Your task to perform on an android device: change notification settings in the gmail app Image 0: 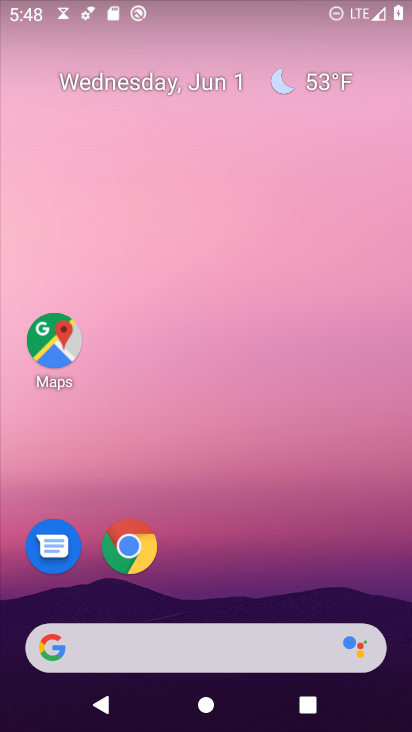
Step 0: drag from (281, 507) to (246, 7)
Your task to perform on an android device: change notification settings in the gmail app Image 1: 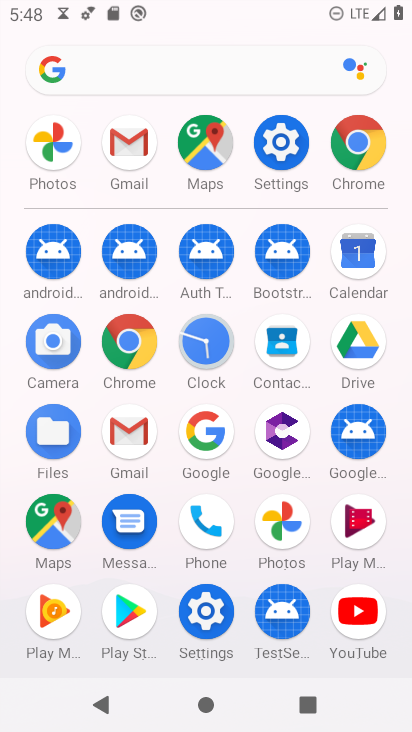
Step 1: drag from (10, 562) to (4, 247)
Your task to perform on an android device: change notification settings in the gmail app Image 2: 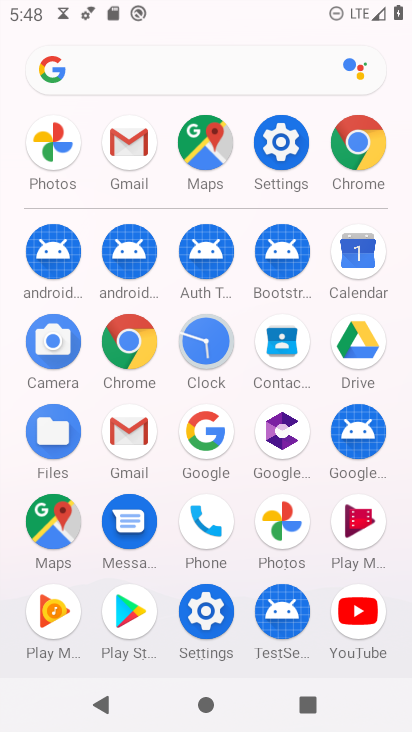
Step 2: click (128, 422)
Your task to perform on an android device: change notification settings in the gmail app Image 3: 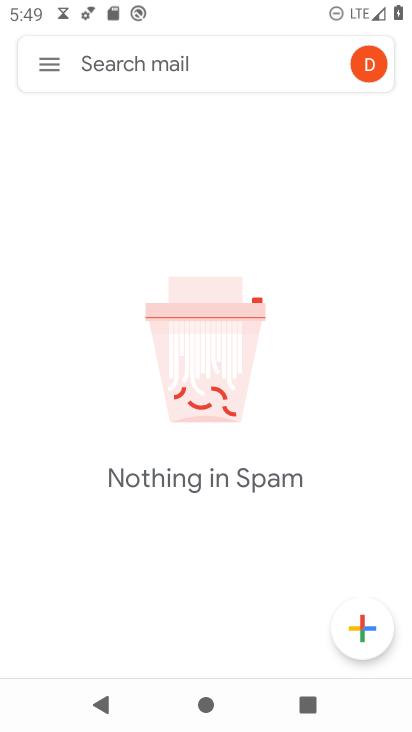
Step 3: click (47, 56)
Your task to perform on an android device: change notification settings in the gmail app Image 4: 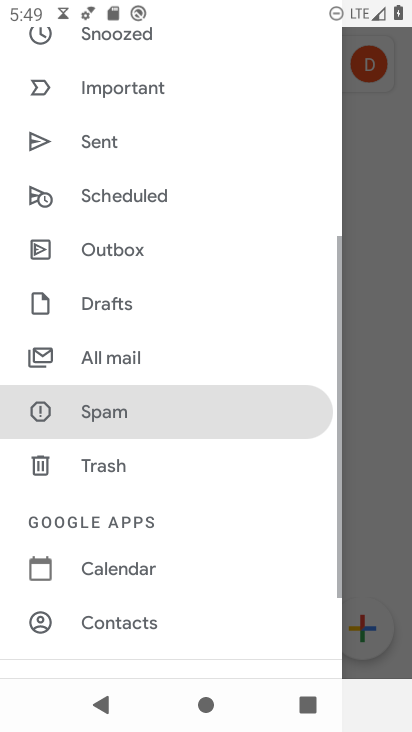
Step 4: drag from (149, 609) to (187, 90)
Your task to perform on an android device: change notification settings in the gmail app Image 5: 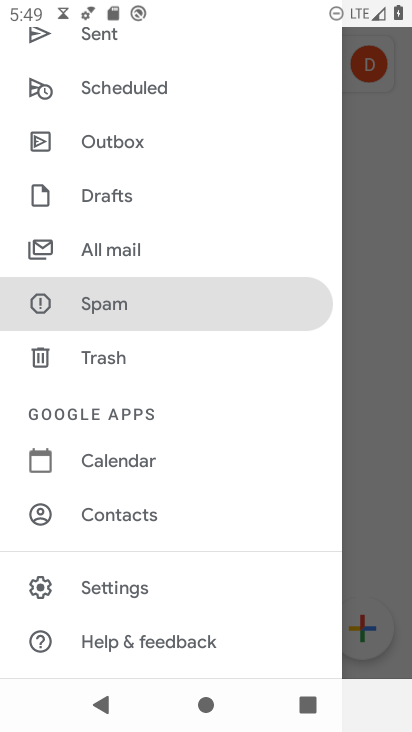
Step 5: click (105, 580)
Your task to perform on an android device: change notification settings in the gmail app Image 6: 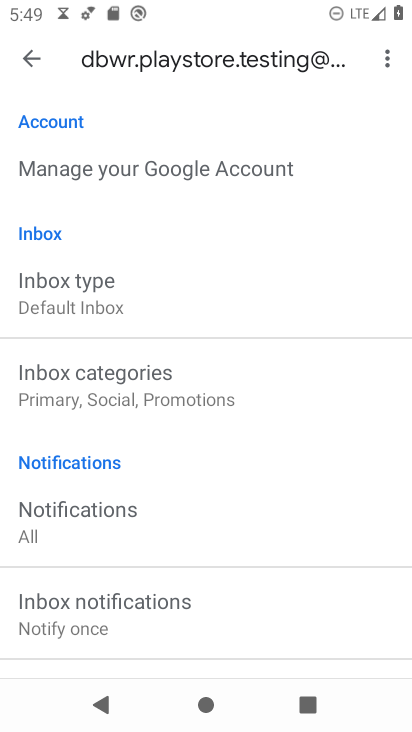
Step 6: drag from (209, 590) to (251, 223)
Your task to perform on an android device: change notification settings in the gmail app Image 7: 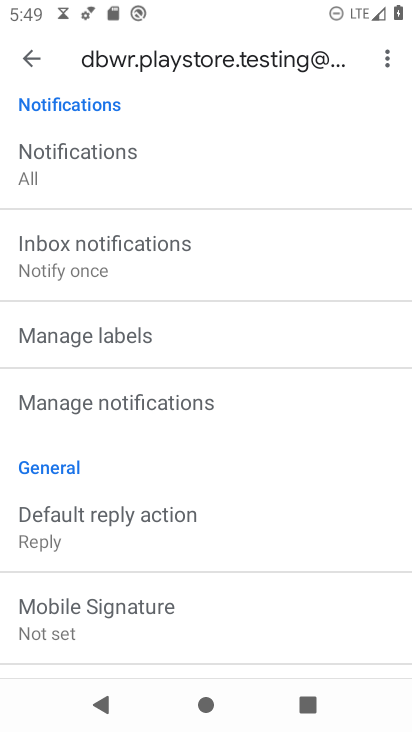
Step 7: click (153, 390)
Your task to perform on an android device: change notification settings in the gmail app Image 8: 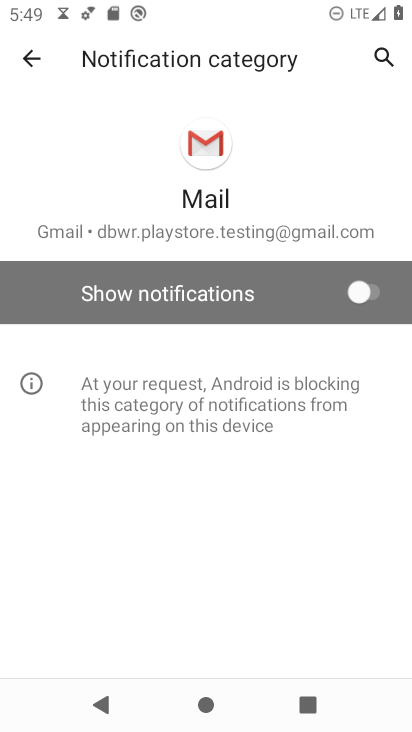
Step 8: click (370, 289)
Your task to perform on an android device: change notification settings in the gmail app Image 9: 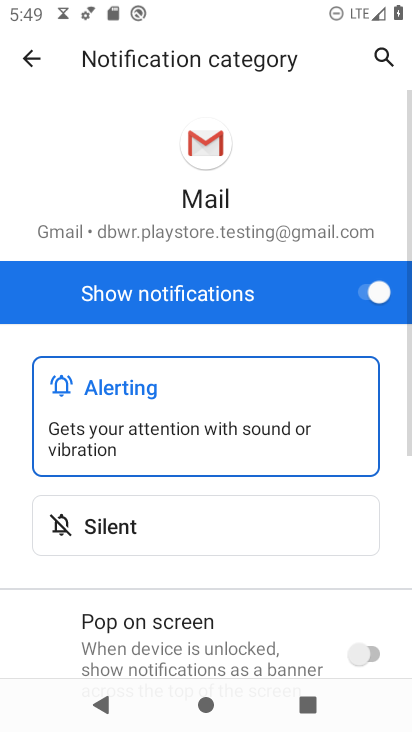
Step 9: task complete